Your task to perform on an android device: Do I have any events this weekend? Image 0: 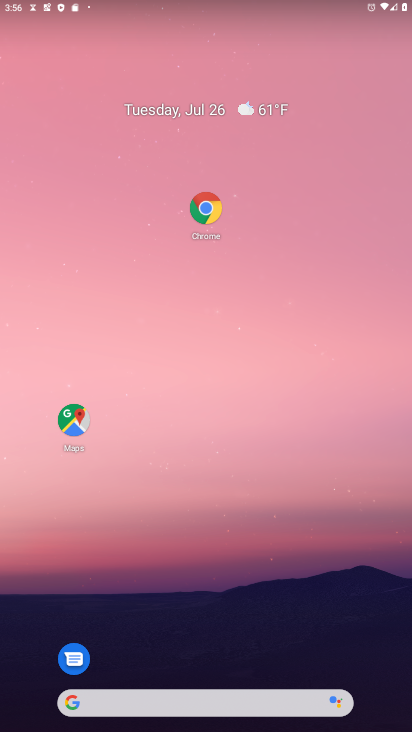
Step 0: drag from (186, 510) to (186, 30)
Your task to perform on an android device: Do I have any events this weekend? Image 1: 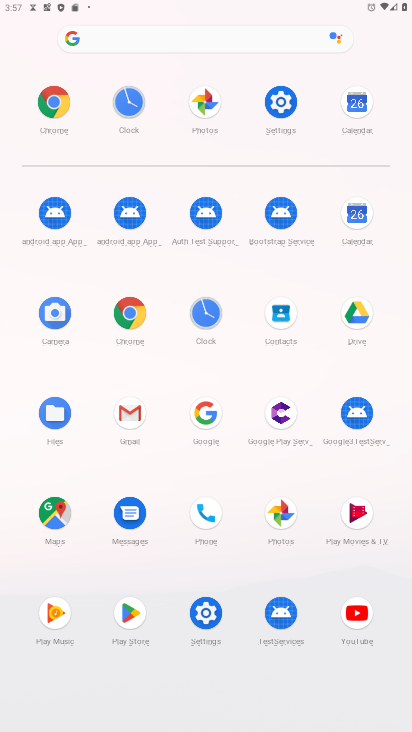
Step 1: click (369, 107)
Your task to perform on an android device: Do I have any events this weekend? Image 2: 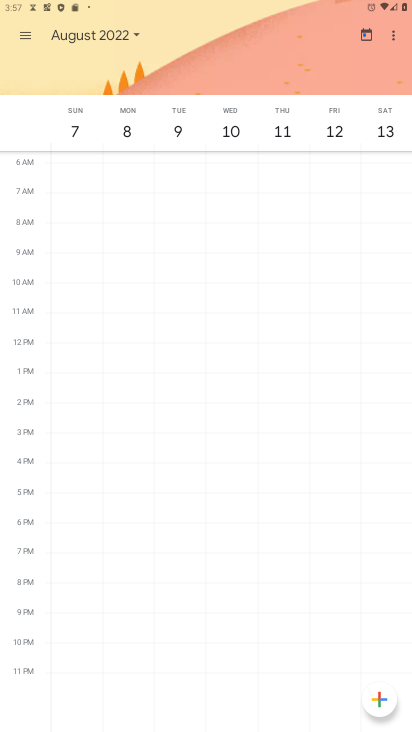
Step 2: click (107, 39)
Your task to perform on an android device: Do I have any events this weekend? Image 3: 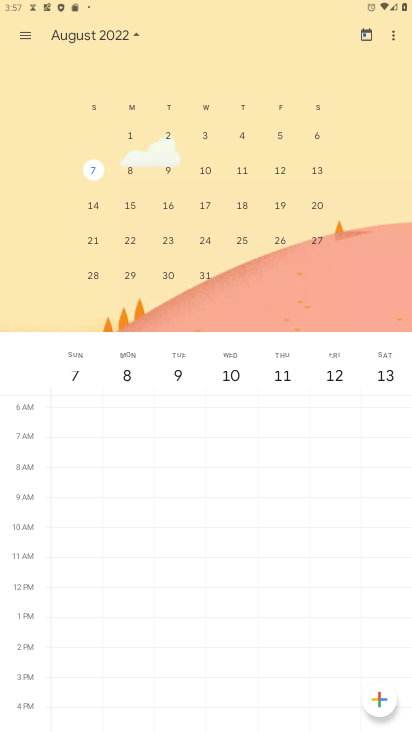
Step 3: drag from (86, 162) to (349, 184)
Your task to perform on an android device: Do I have any events this weekend? Image 4: 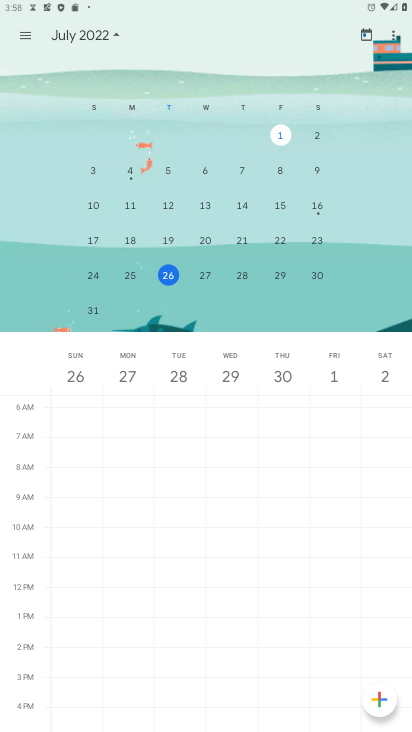
Step 4: click (90, 279)
Your task to perform on an android device: Do I have any events this weekend? Image 5: 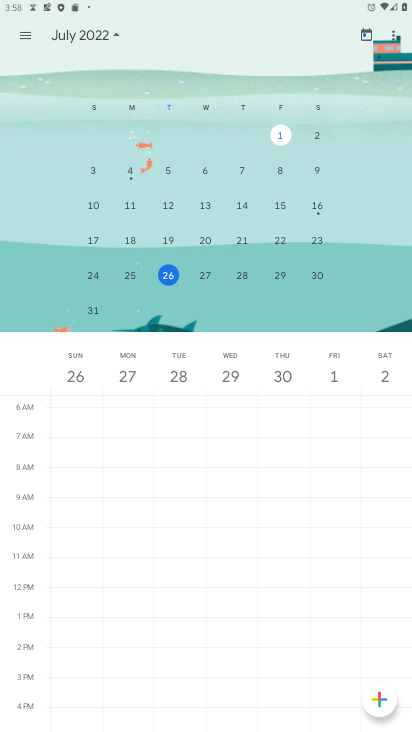
Step 5: click (90, 279)
Your task to perform on an android device: Do I have any events this weekend? Image 6: 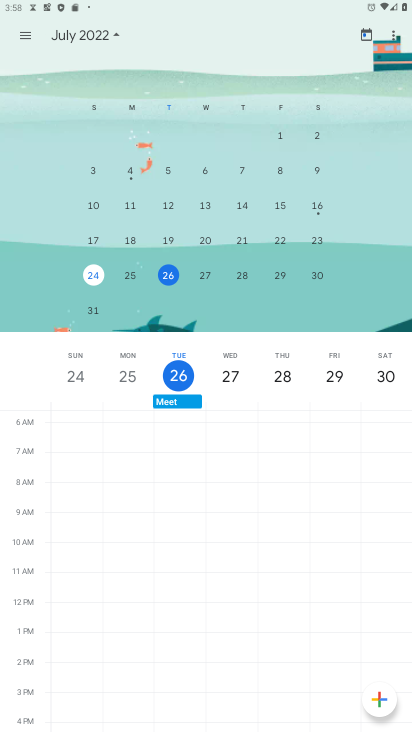
Step 6: task complete